Your task to perform on an android device: add a contact in the contacts app Image 0: 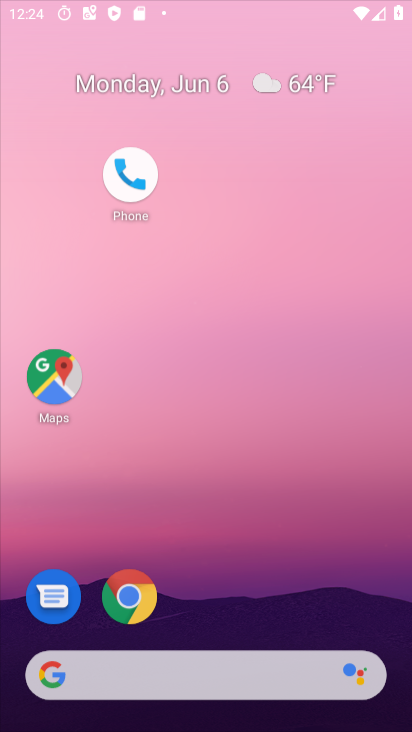
Step 0: drag from (288, 686) to (243, 276)
Your task to perform on an android device: add a contact in the contacts app Image 1: 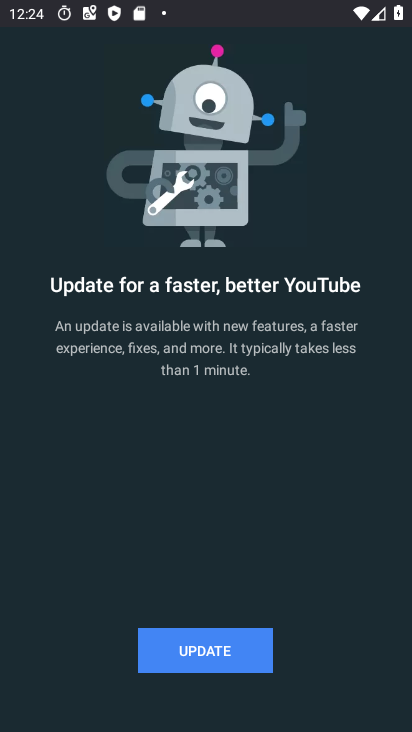
Step 1: press back button
Your task to perform on an android device: add a contact in the contacts app Image 2: 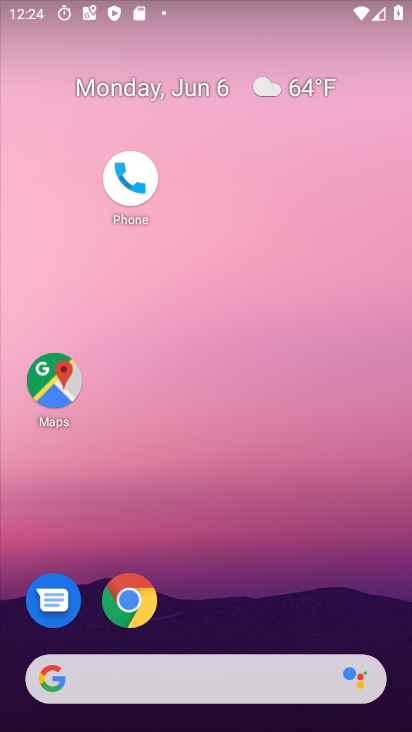
Step 2: drag from (237, 627) to (187, 89)
Your task to perform on an android device: add a contact in the contacts app Image 3: 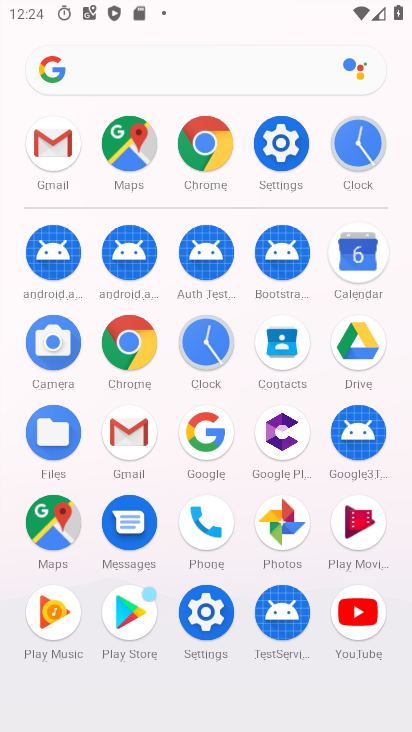
Step 3: click (286, 343)
Your task to perform on an android device: add a contact in the contacts app Image 4: 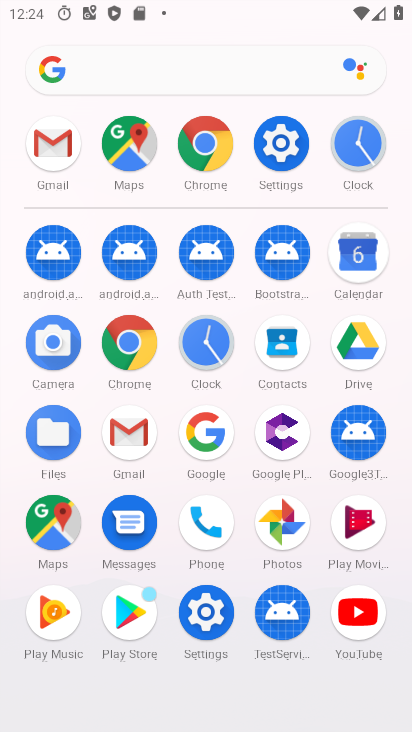
Step 4: click (286, 343)
Your task to perform on an android device: add a contact in the contacts app Image 5: 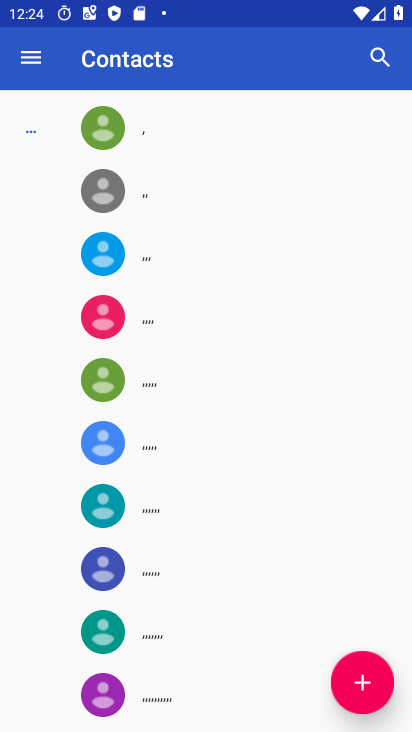
Step 5: click (282, 347)
Your task to perform on an android device: add a contact in the contacts app Image 6: 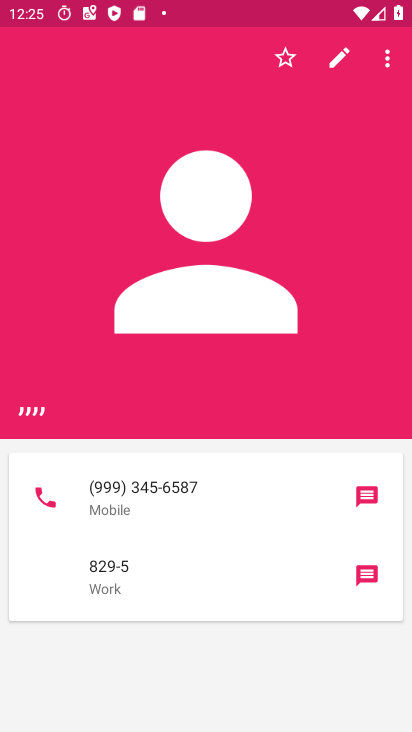
Step 6: press home button
Your task to perform on an android device: add a contact in the contacts app Image 7: 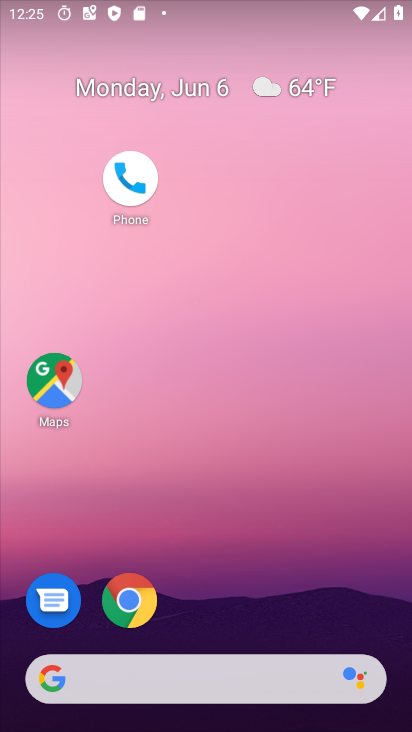
Step 7: drag from (273, 584) to (205, 161)
Your task to perform on an android device: add a contact in the contacts app Image 8: 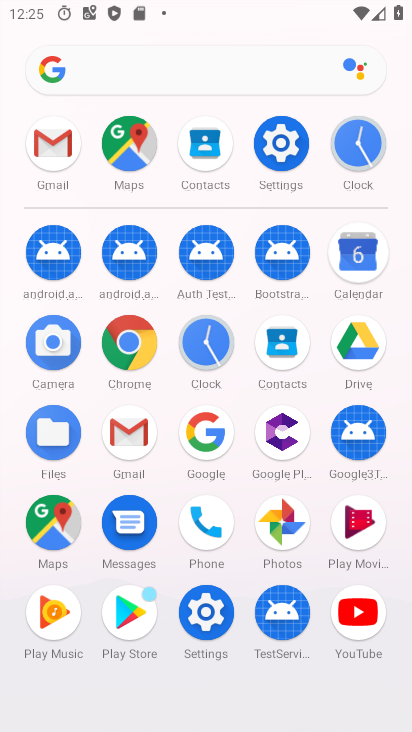
Step 8: click (287, 359)
Your task to perform on an android device: add a contact in the contacts app Image 9: 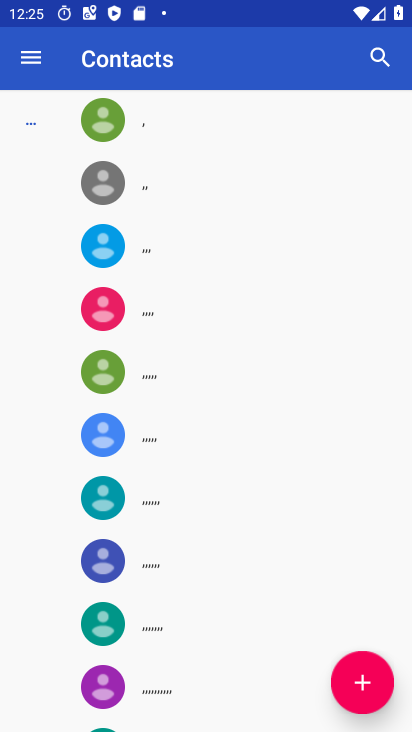
Step 9: click (367, 678)
Your task to perform on an android device: add a contact in the contacts app Image 10: 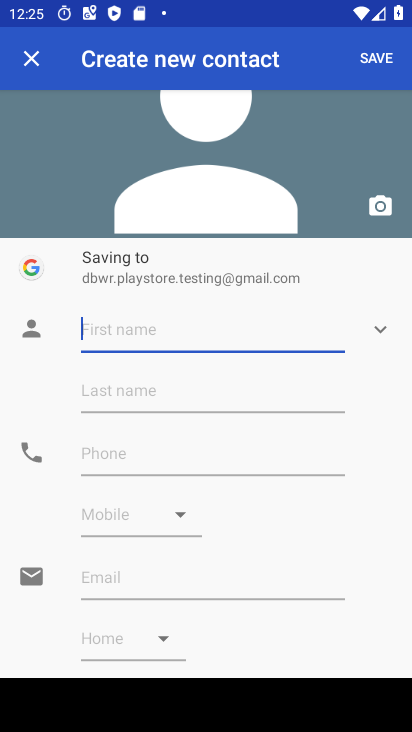
Step 10: type "bssvvxxhjvhj"
Your task to perform on an android device: add a contact in the contacts app Image 11: 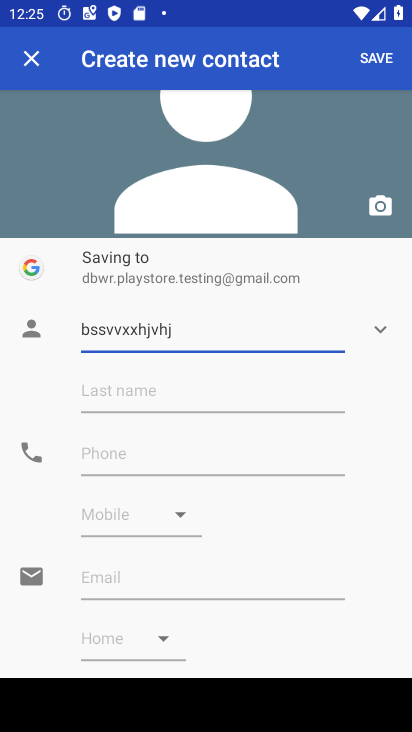
Step 11: click (90, 444)
Your task to perform on an android device: add a contact in the contacts app Image 12: 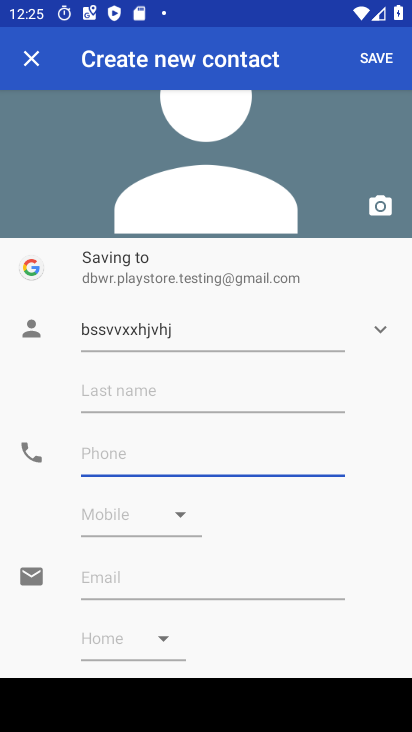
Step 12: click (85, 446)
Your task to perform on an android device: add a contact in the contacts app Image 13: 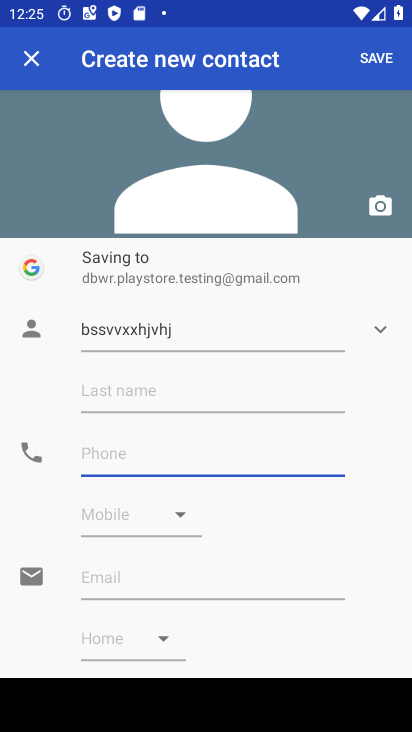
Step 13: click (85, 446)
Your task to perform on an android device: add a contact in the contacts app Image 14: 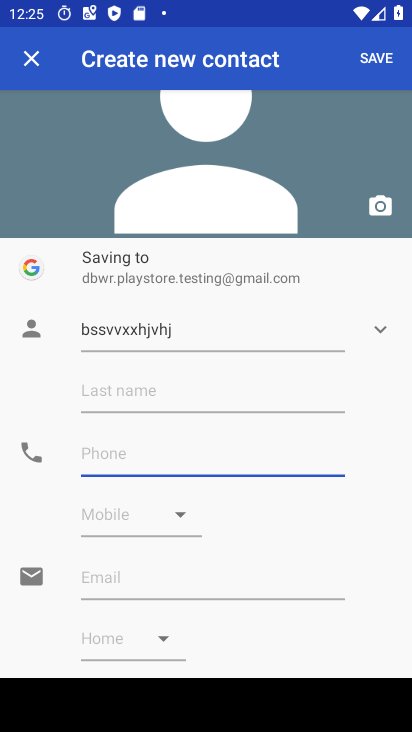
Step 14: click (85, 446)
Your task to perform on an android device: add a contact in the contacts app Image 15: 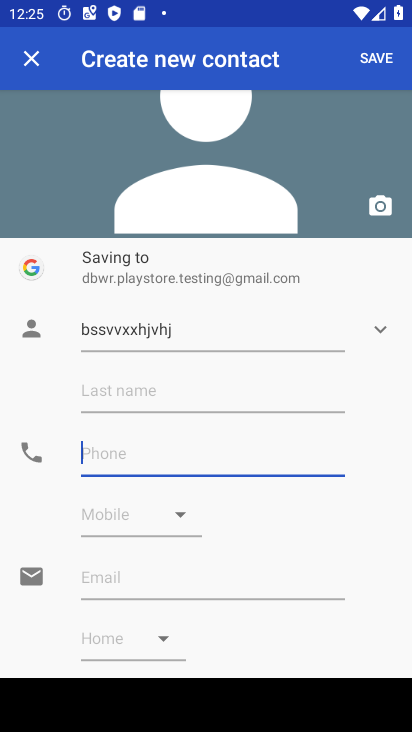
Step 15: type "7847575943798"
Your task to perform on an android device: add a contact in the contacts app Image 16: 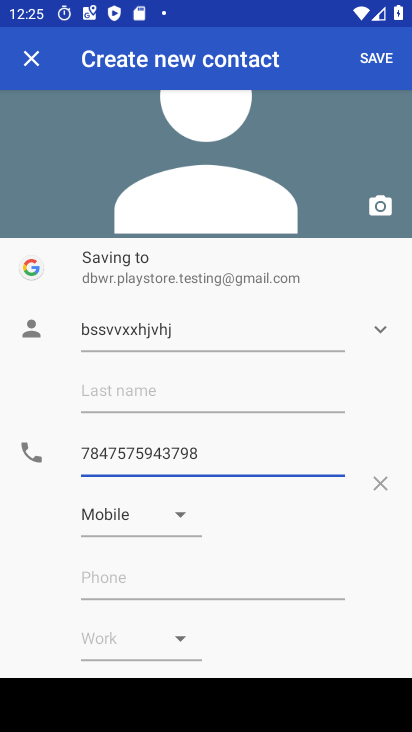
Step 16: click (375, 50)
Your task to perform on an android device: add a contact in the contacts app Image 17: 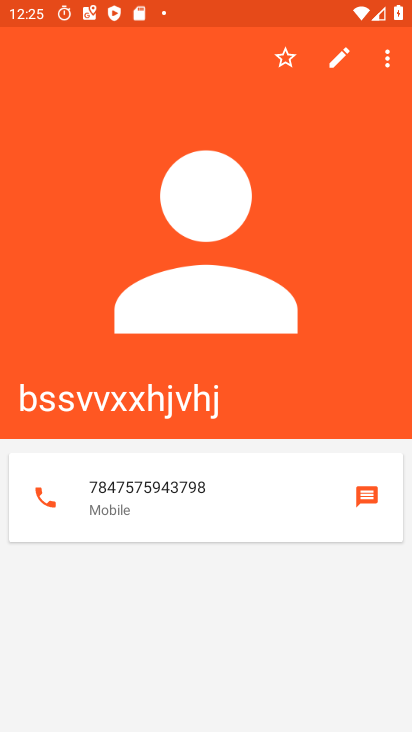
Step 17: task complete